Your task to perform on an android device: Open Google Maps and go to "Timeline" Image 0: 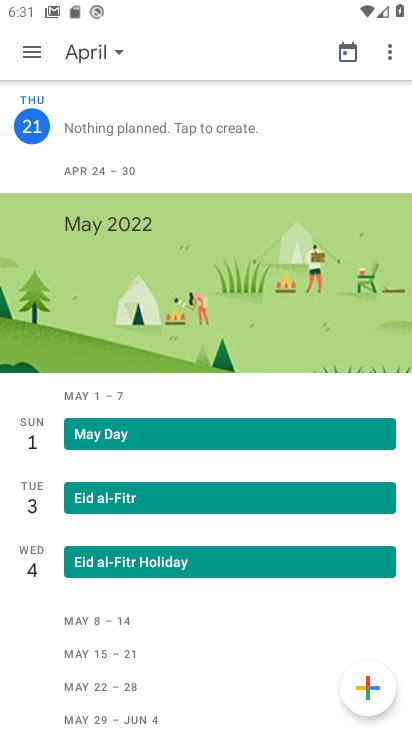
Step 0: click (370, 156)
Your task to perform on an android device: Open Google Maps and go to "Timeline" Image 1: 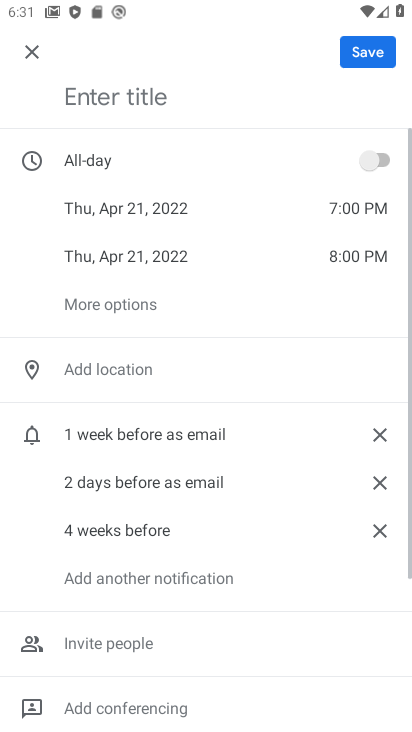
Step 1: press home button
Your task to perform on an android device: Open Google Maps and go to "Timeline" Image 2: 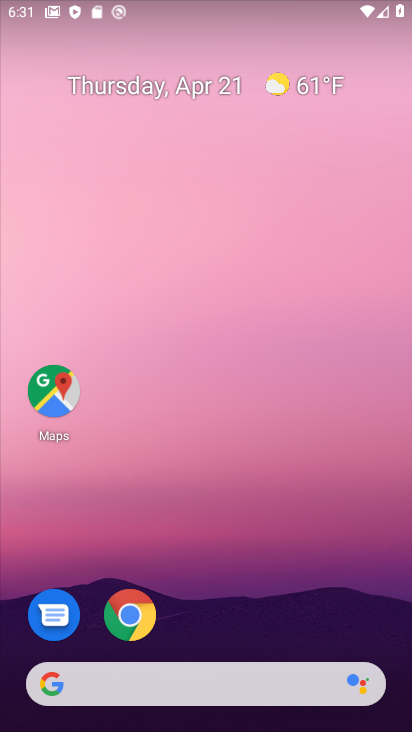
Step 2: drag from (229, 189) to (254, 0)
Your task to perform on an android device: Open Google Maps and go to "Timeline" Image 3: 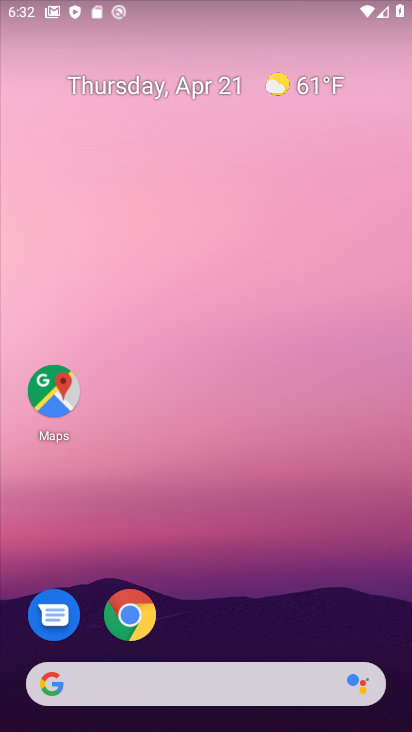
Step 3: drag from (260, 299) to (365, 0)
Your task to perform on an android device: Open Google Maps and go to "Timeline" Image 4: 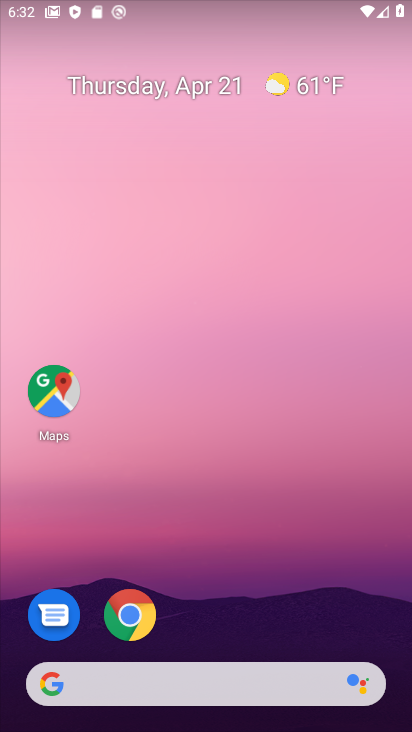
Step 4: click (65, 381)
Your task to perform on an android device: Open Google Maps and go to "Timeline" Image 5: 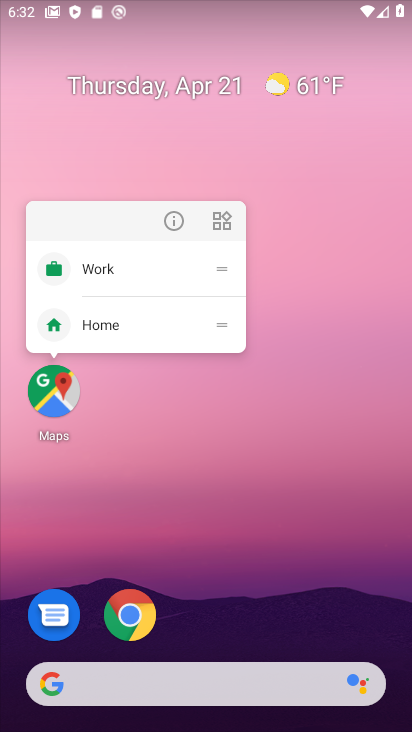
Step 5: click (167, 218)
Your task to perform on an android device: Open Google Maps and go to "Timeline" Image 6: 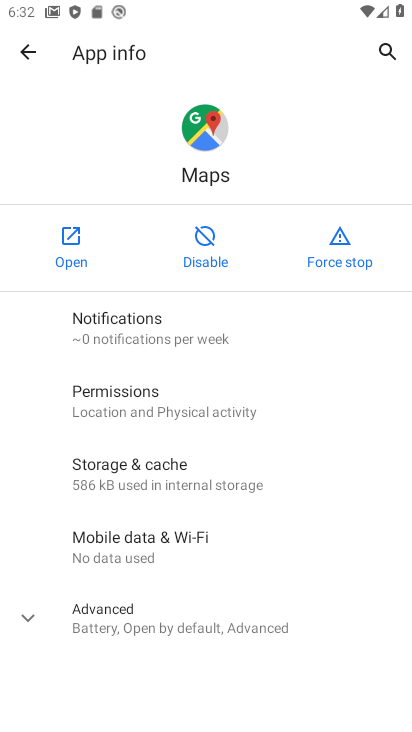
Step 6: click (60, 239)
Your task to perform on an android device: Open Google Maps and go to "Timeline" Image 7: 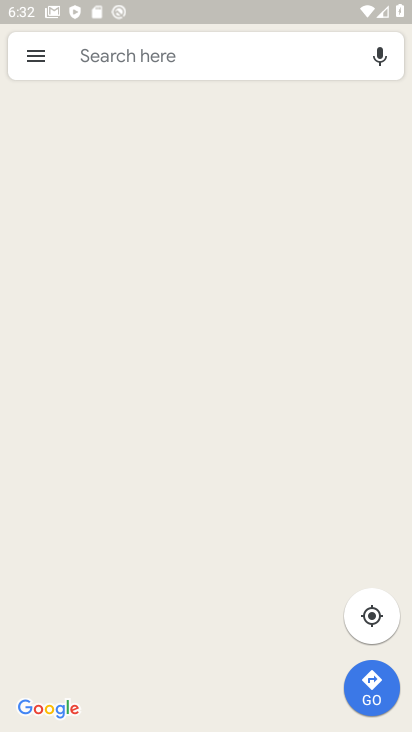
Step 7: click (23, 52)
Your task to perform on an android device: Open Google Maps and go to "Timeline" Image 8: 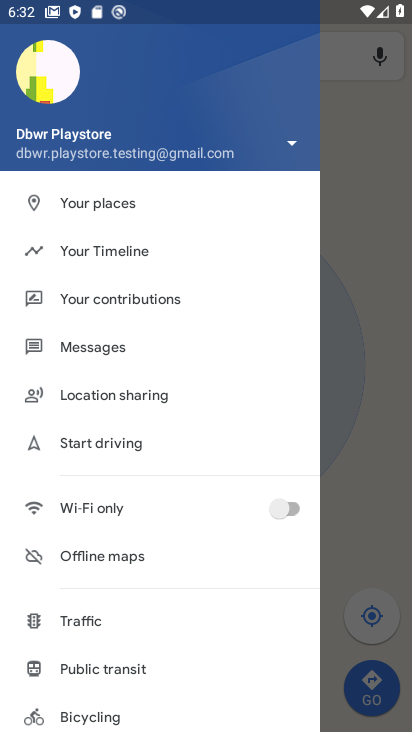
Step 8: click (119, 250)
Your task to perform on an android device: Open Google Maps and go to "Timeline" Image 9: 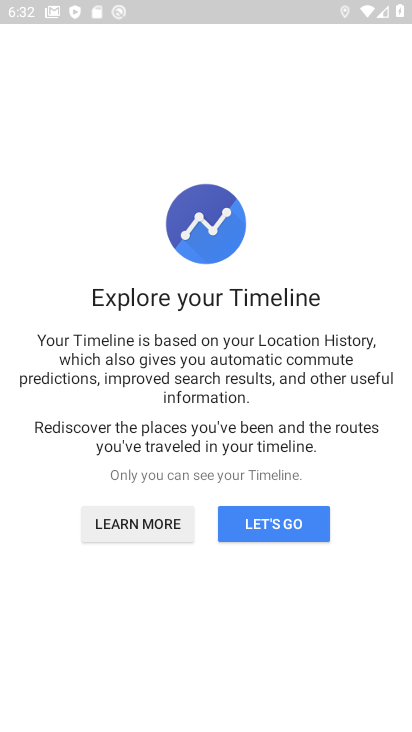
Step 9: click (294, 514)
Your task to perform on an android device: Open Google Maps and go to "Timeline" Image 10: 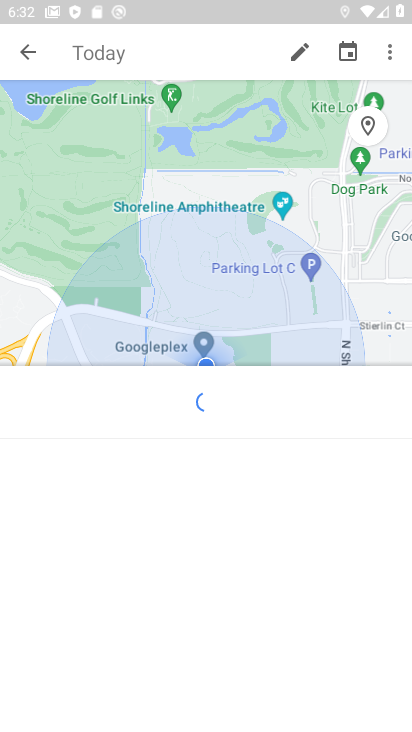
Step 10: task complete